Your task to perform on an android device: turn on airplane mode Image 0: 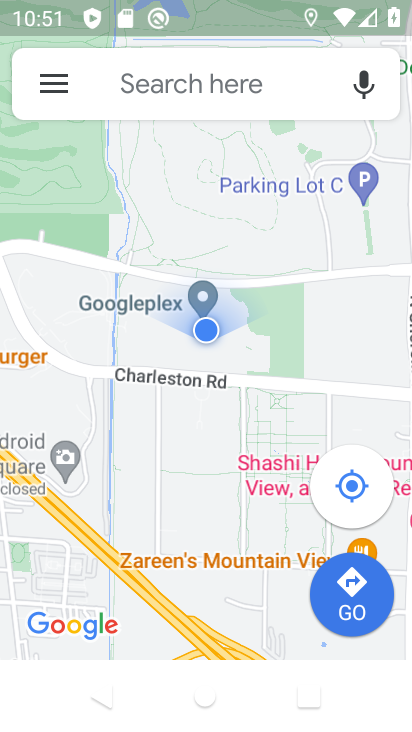
Step 0: press home button
Your task to perform on an android device: turn on airplane mode Image 1: 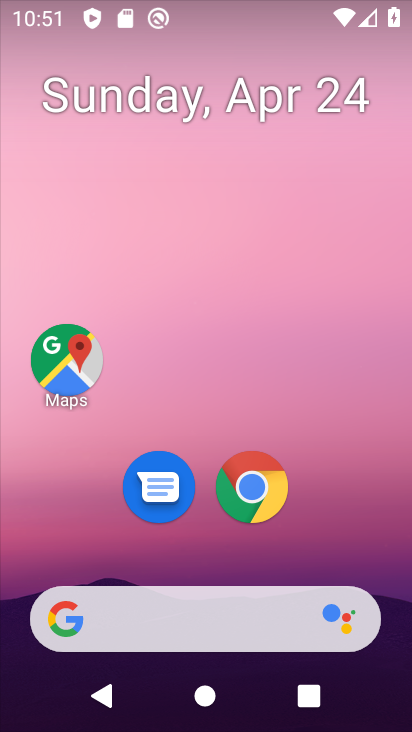
Step 1: drag from (121, 439) to (259, 219)
Your task to perform on an android device: turn on airplane mode Image 2: 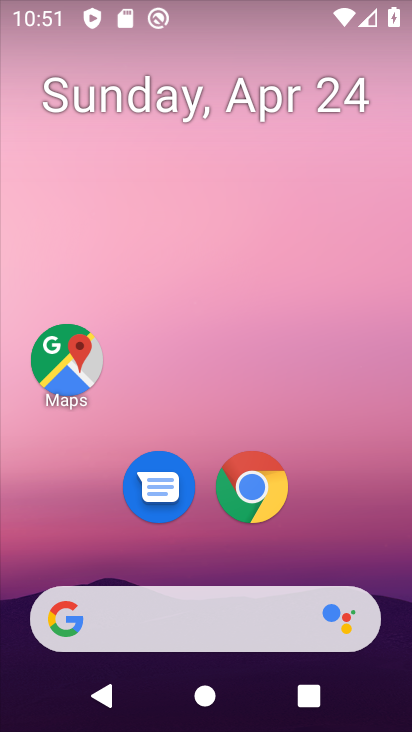
Step 2: drag from (100, 533) to (225, 256)
Your task to perform on an android device: turn on airplane mode Image 3: 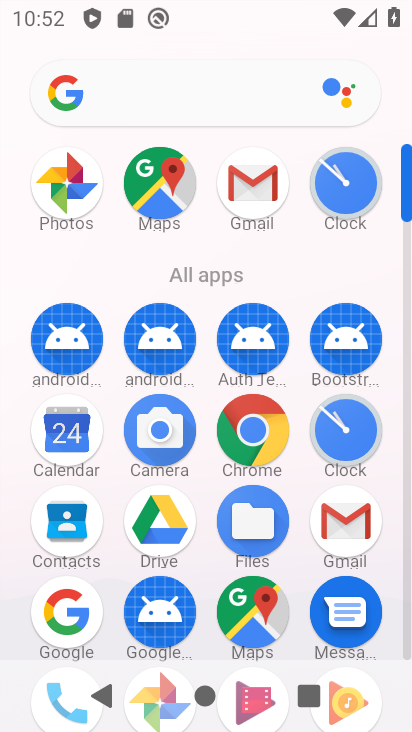
Step 3: drag from (90, 616) to (218, 316)
Your task to perform on an android device: turn on airplane mode Image 4: 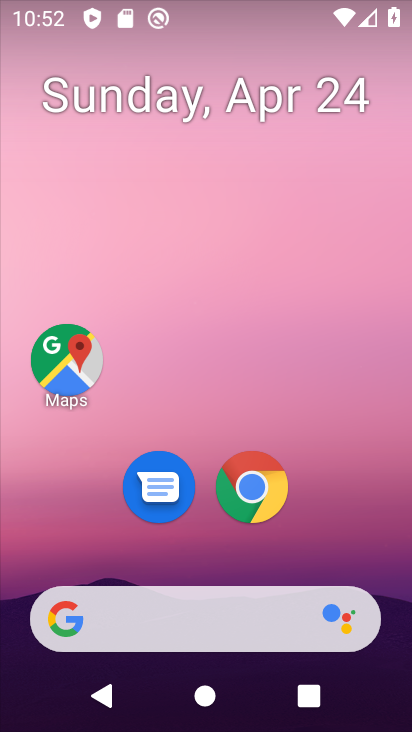
Step 4: drag from (96, 369) to (228, 148)
Your task to perform on an android device: turn on airplane mode Image 5: 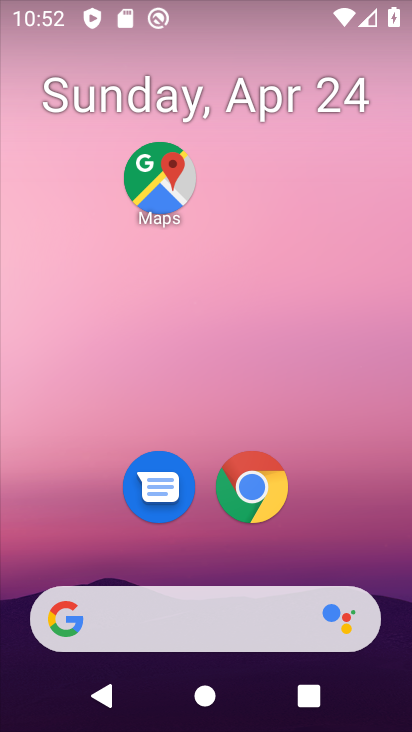
Step 5: drag from (46, 576) to (286, 117)
Your task to perform on an android device: turn on airplane mode Image 6: 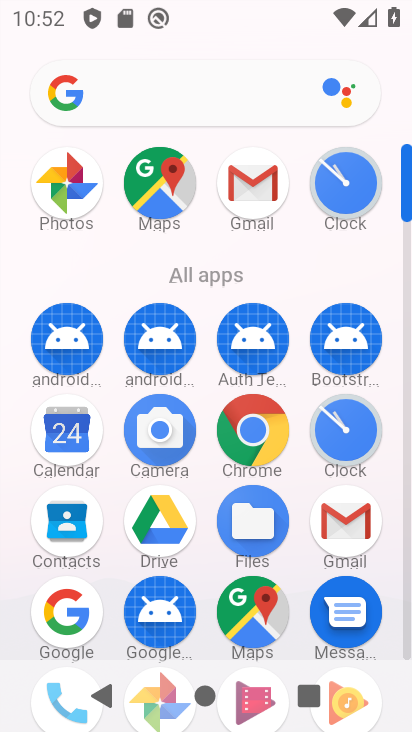
Step 6: drag from (83, 433) to (272, 154)
Your task to perform on an android device: turn on airplane mode Image 7: 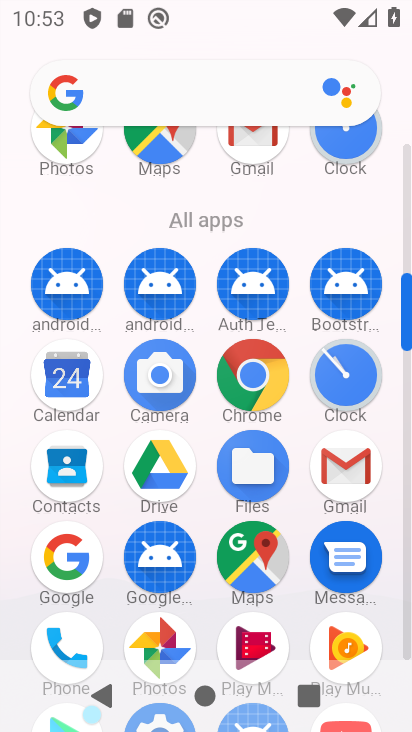
Step 7: drag from (155, 543) to (278, 306)
Your task to perform on an android device: turn on airplane mode Image 8: 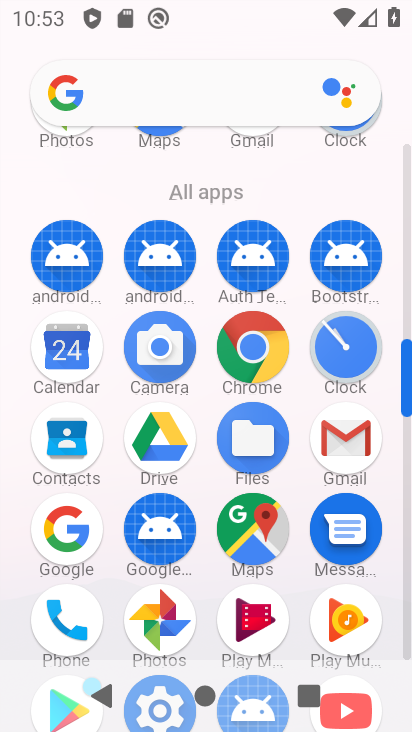
Step 8: drag from (120, 618) to (337, 259)
Your task to perform on an android device: turn on airplane mode Image 9: 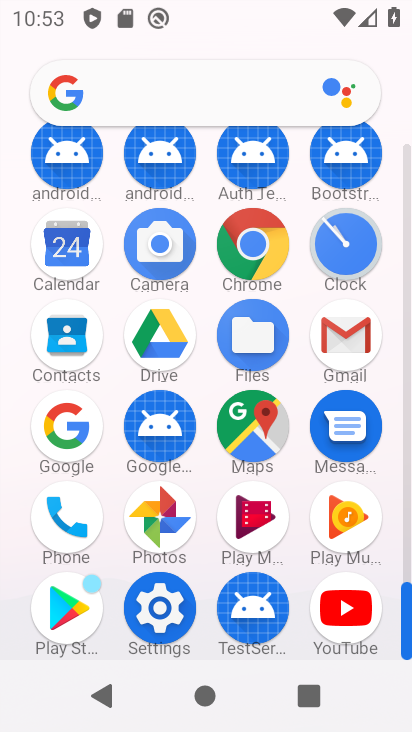
Step 9: click (155, 591)
Your task to perform on an android device: turn on airplane mode Image 10: 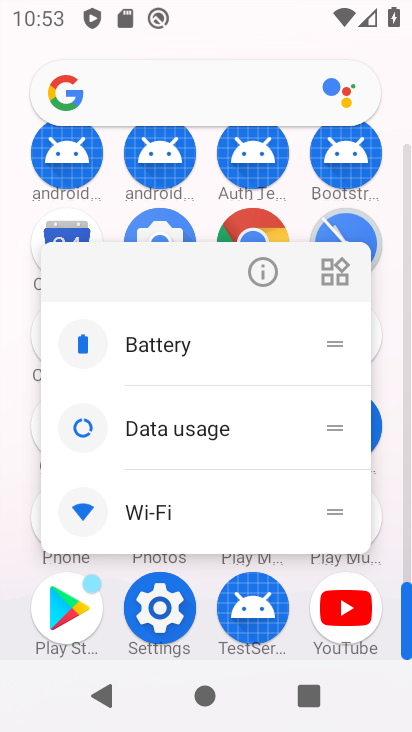
Step 10: click (248, 272)
Your task to perform on an android device: turn on airplane mode Image 11: 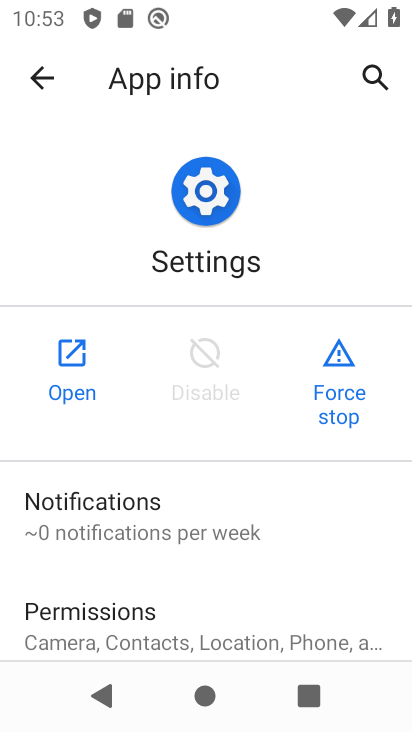
Step 11: click (63, 353)
Your task to perform on an android device: turn on airplane mode Image 12: 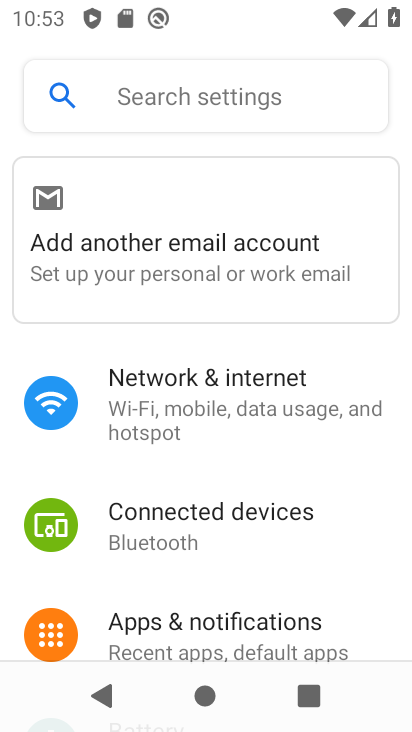
Step 12: click (184, 223)
Your task to perform on an android device: turn on airplane mode Image 13: 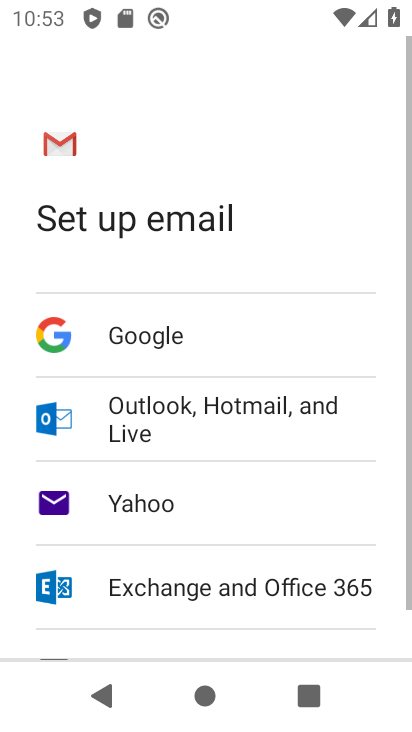
Step 13: press back button
Your task to perform on an android device: turn on airplane mode Image 14: 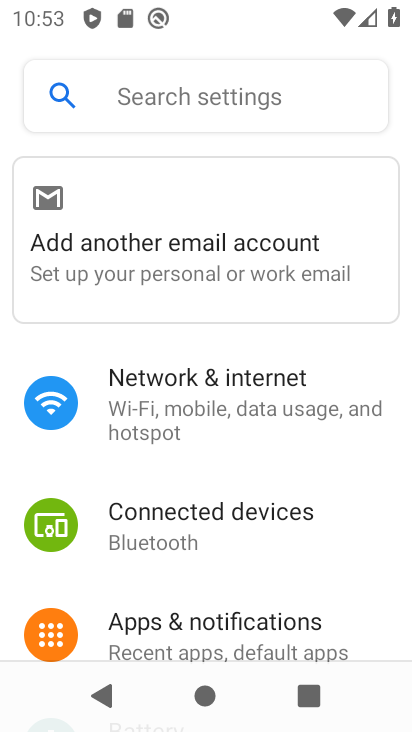
Step 14: click (212, 376)
Your task to perform on an android device: turn on airplane mode Image 15: 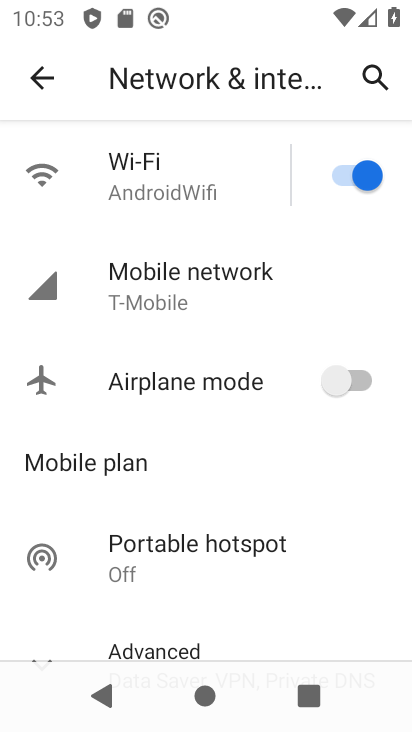
Step 15: click (330, 388)
Your task to perform on an android device: turn on airplane mode Image 16: 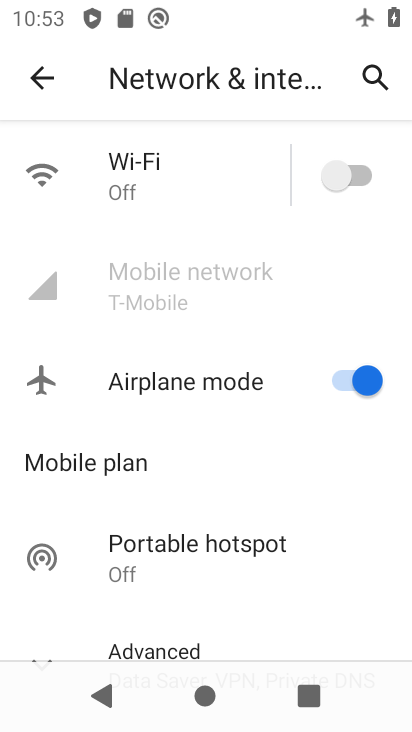
Step 16: task complete